Your task to perform on an android device: toggle notifications settings in the gmail app Image 0: 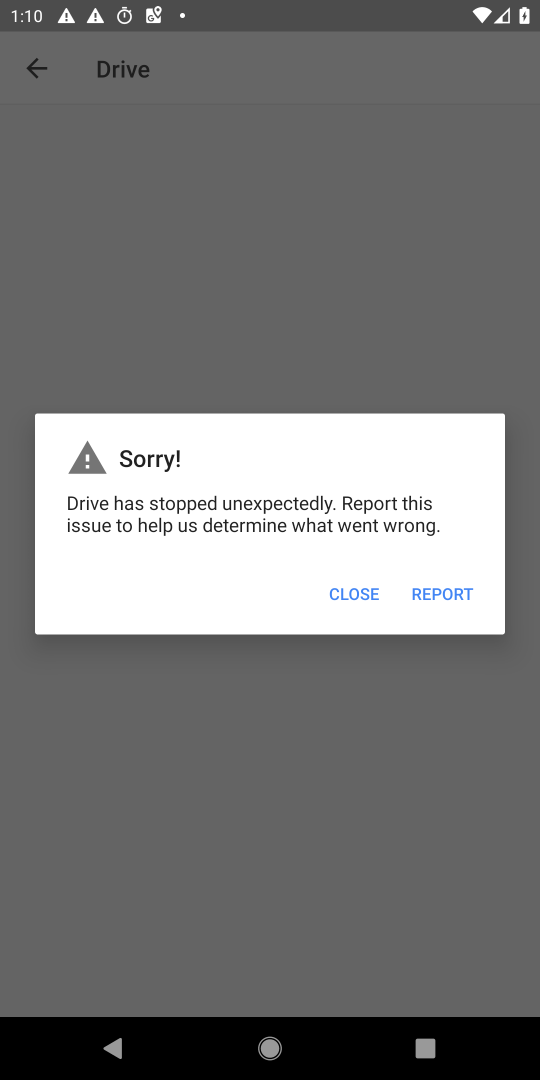
Step 0: press home button
Your task to perform on an android device: toggle notifications settings in the gmail app Image 1: 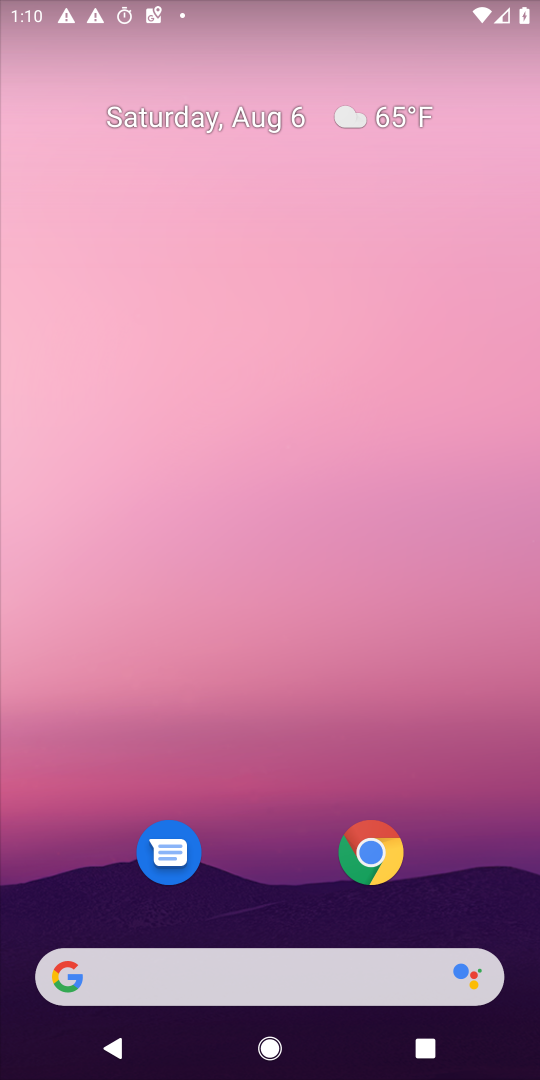
Step 1: drag from (349, 1014) to (185, 330)
Your task to perform on an android device: toggle notifications settings in the gmail app Image 2: 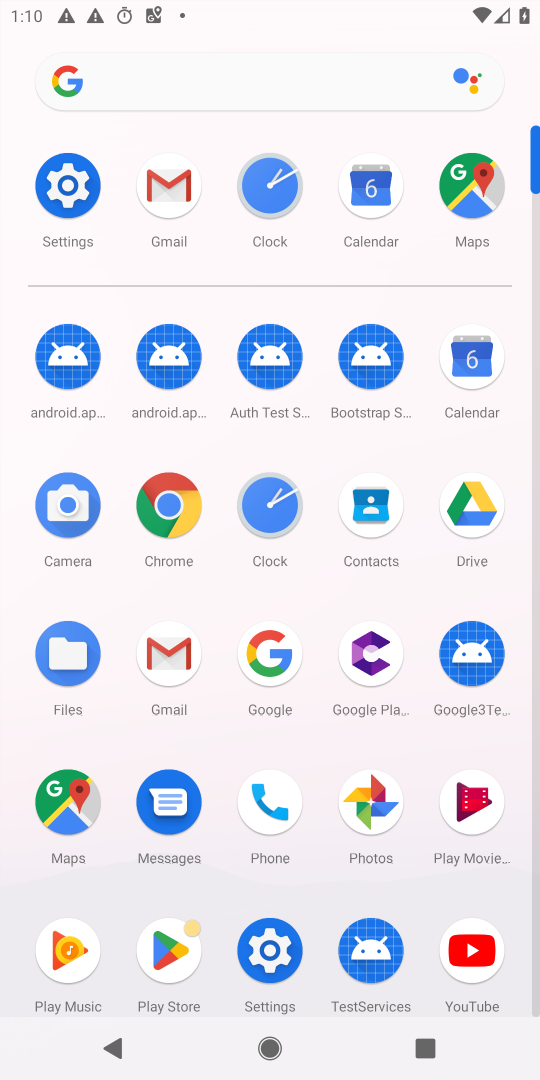
Step 2: click (178, 642)
Your task to perform on an android device: toggle notifications settings in the gmail app Image 3: 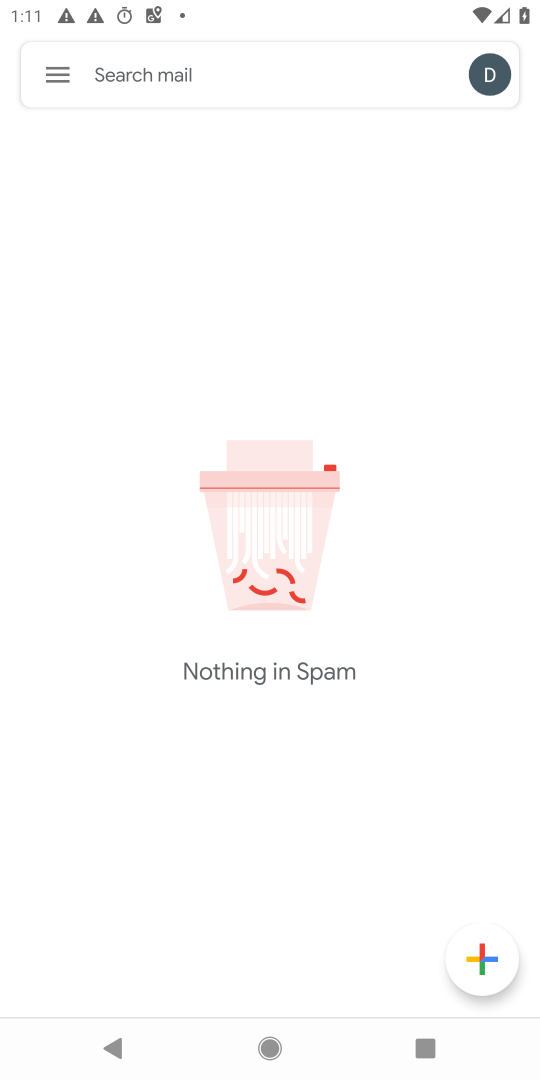
Step 3: click (51, 87)
Your task to perform on an android device: toggle notifications settings in the gmail app Image 4: 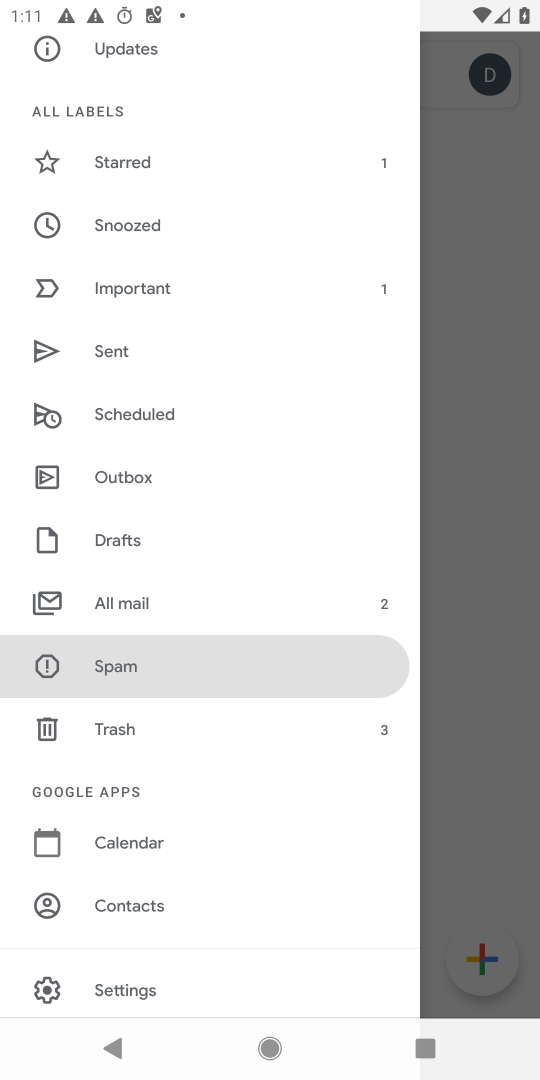
Step 4: click (127, 990)
Your task to perform on an android device: toggle notifications settings in the gmail app Image 5: 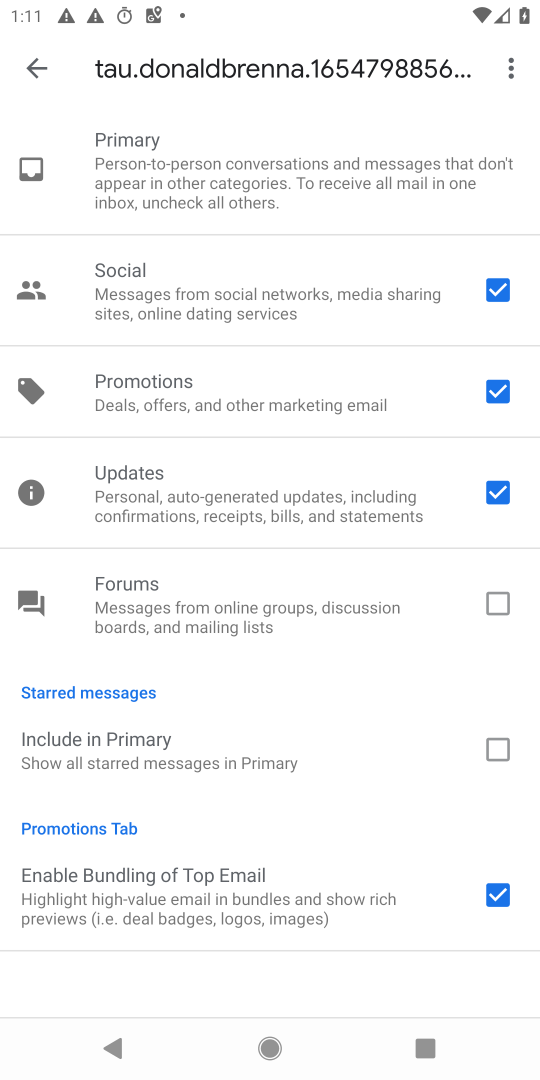
Step 5: click (31, 74)
Your task to perform on an android device: toggle notifications settings in the gmail app Image 6: 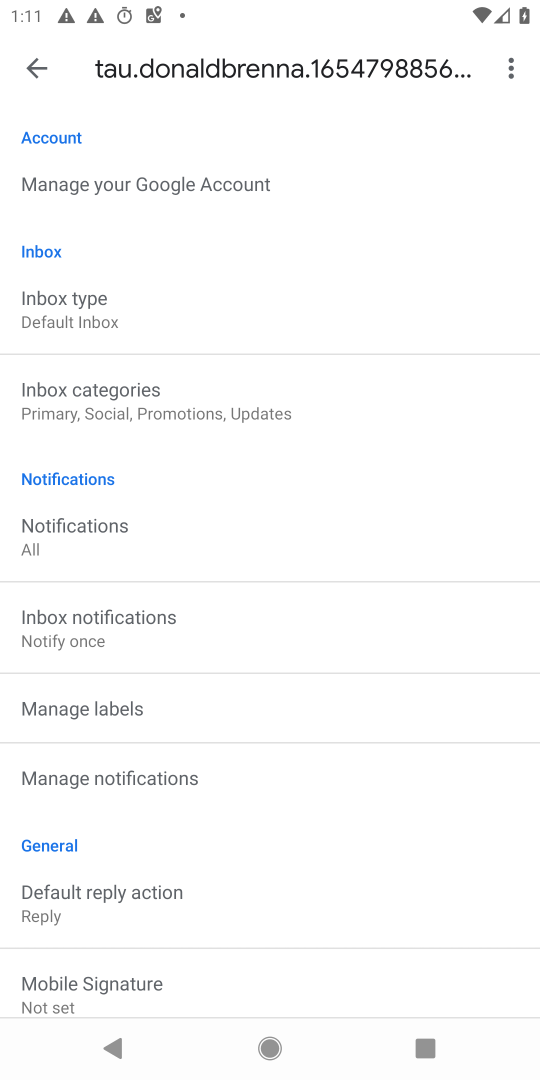
Step 6: click (131, 518)
Your task to perform on an android device: toggle notifications settings in the gmail app Image 7: 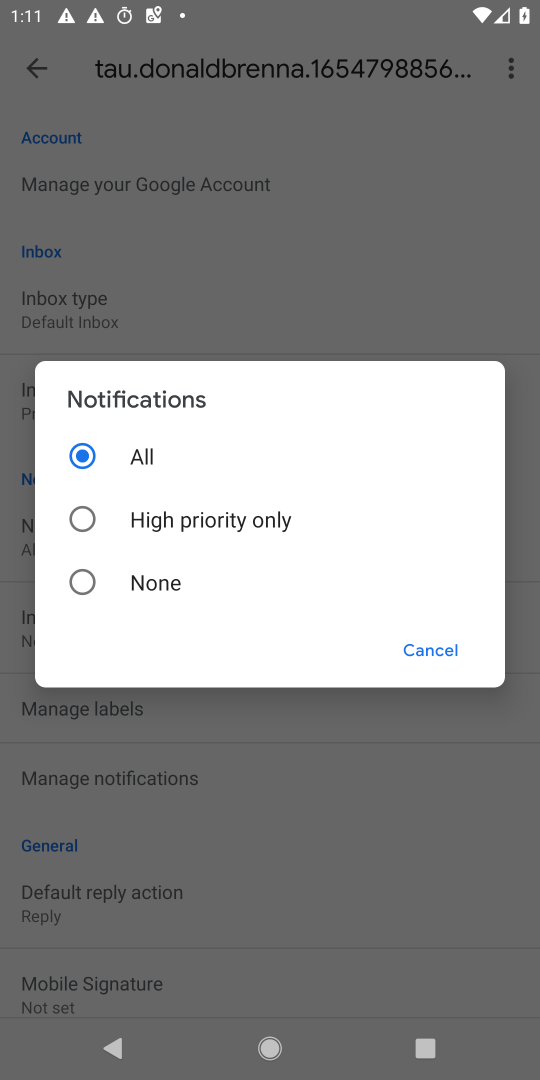
Step 7: click (427, 652)
Your task to perform on an android device: toggle notifications settings in the gmail app Image 8: 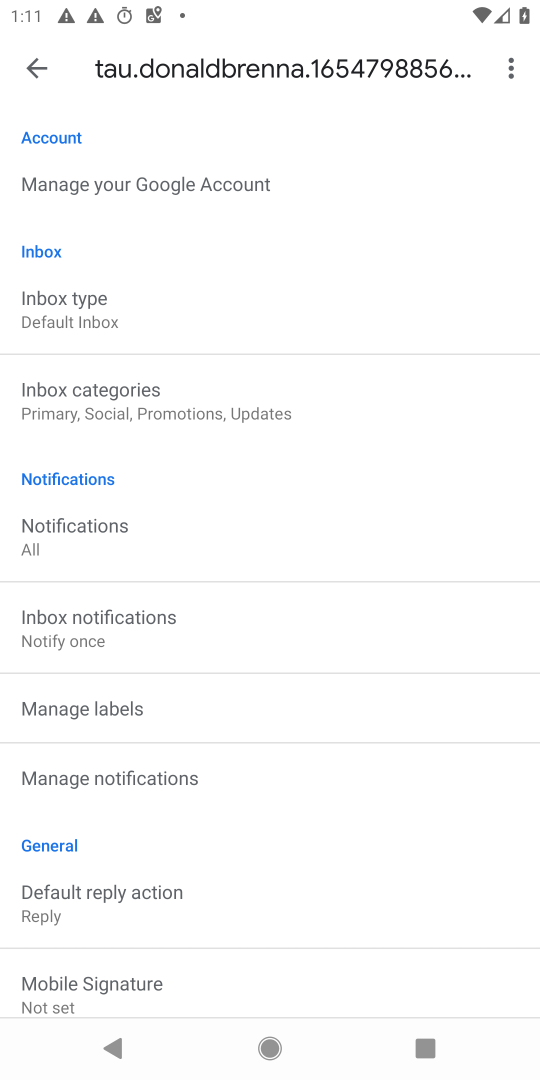
Step 8: click (131, 518)
Your task to perform on an android device: toggle notifications settings in the gmail app Image 9: 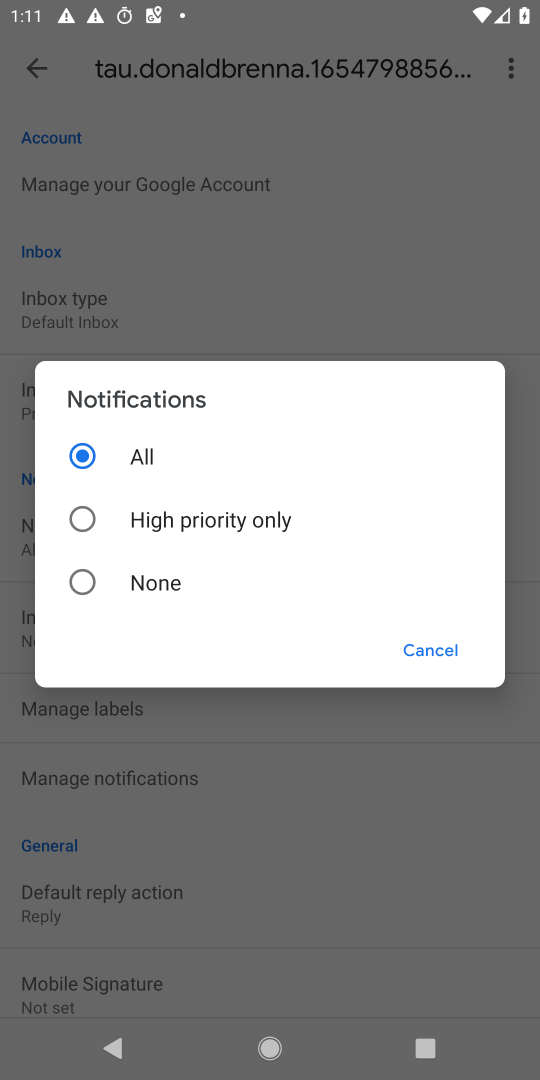
Step 9: task complete